Your task to perform on an android device: Go to settings Image 0: 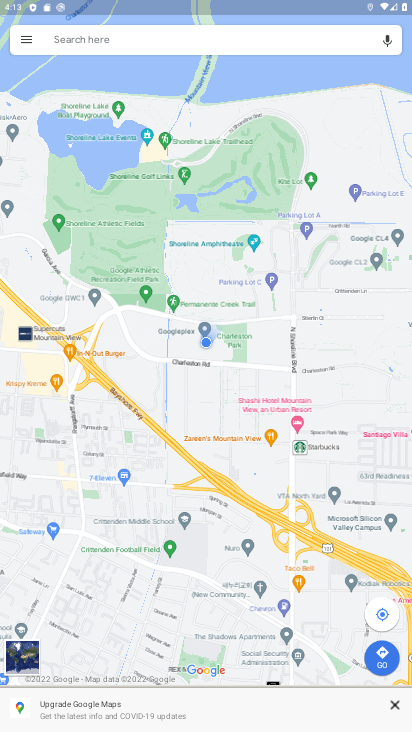
Step 0: press home button
Your task to perform on an android device: Go to settings Image 1: 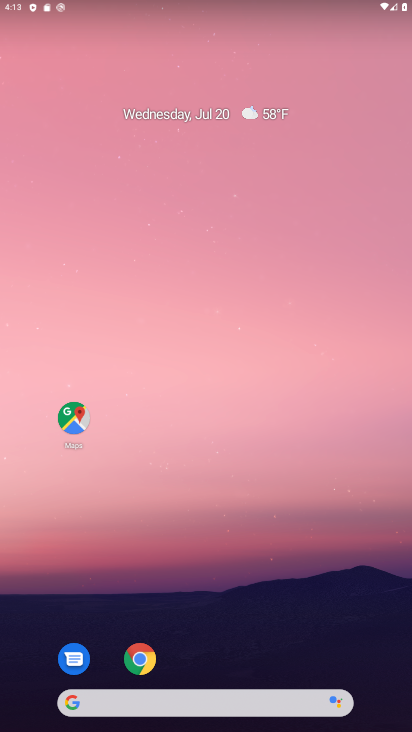
Step 1: drag from (220, 693) to (407, 1)
Your task to perform on an android device: Go to settings Image 2: 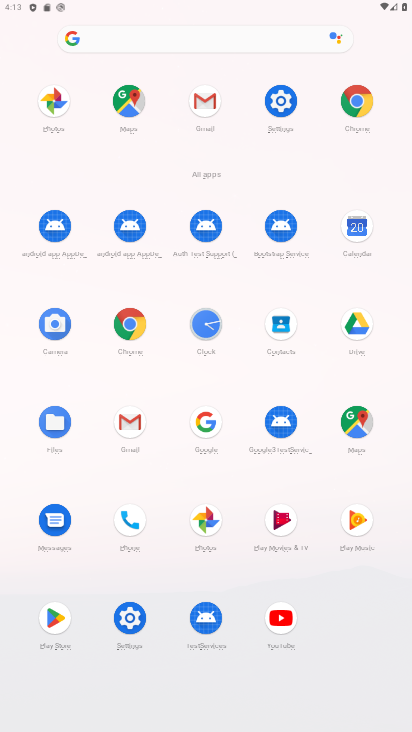
Step 2: click (281, 91)
Your task to perform on an android device: Go to settings Image 3: 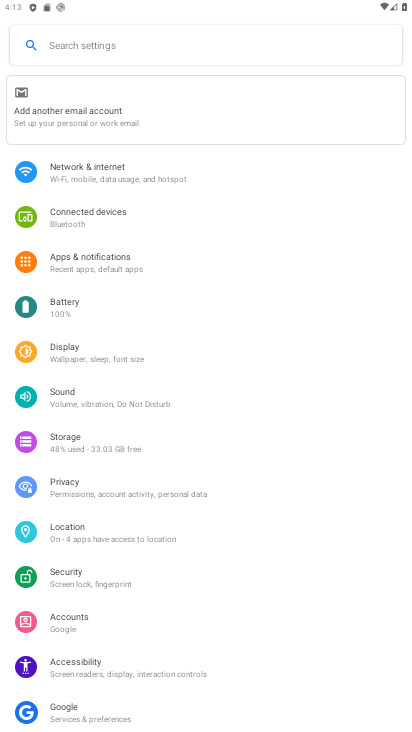
Step 3: task complete